Your task to perform on an android device: Open Youtube and go to "Your channel" Image 0: 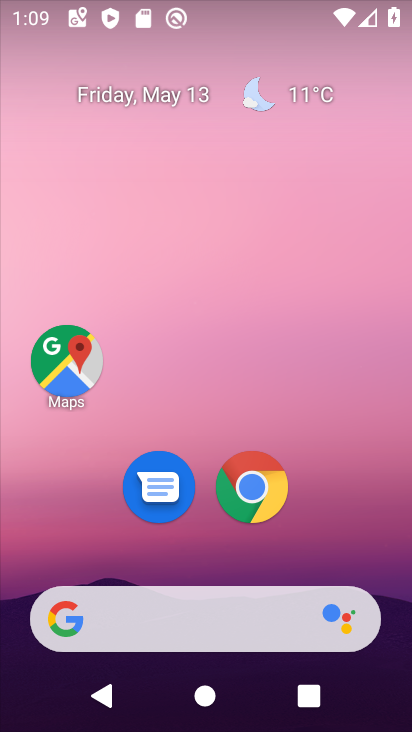
Step 0: drag from (341, 552) to (321, 75)
Your task to perform on an android device: Open Youtube and go to "Your channel" Image 1: 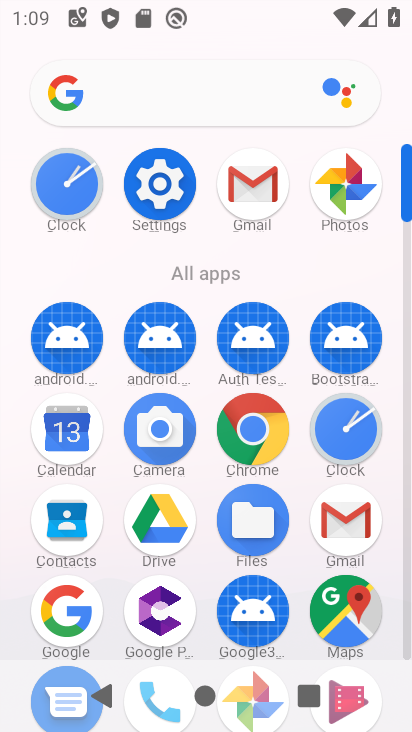
Step 1: drag from (302, 603) to (305, 173)
Your task to perform on an android device: Open Youtube and go to "Your channel" Image 2: 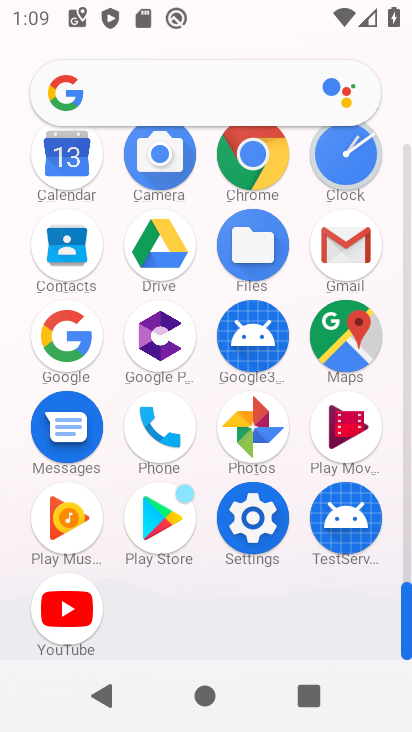
Step 2: click (65, 612)
Your task to perform on an android device: Open Youtube and go to "Your channel" Image 3: 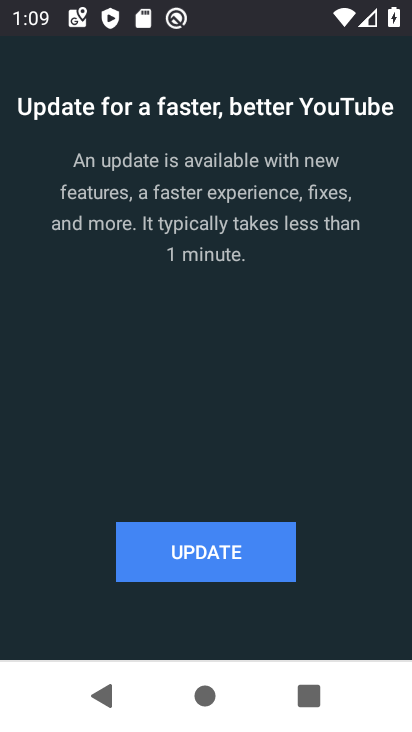
Step 3: click (270, 565)
Your task to perform on an android device: Open Youtube and go to "Your channel" Image 4: 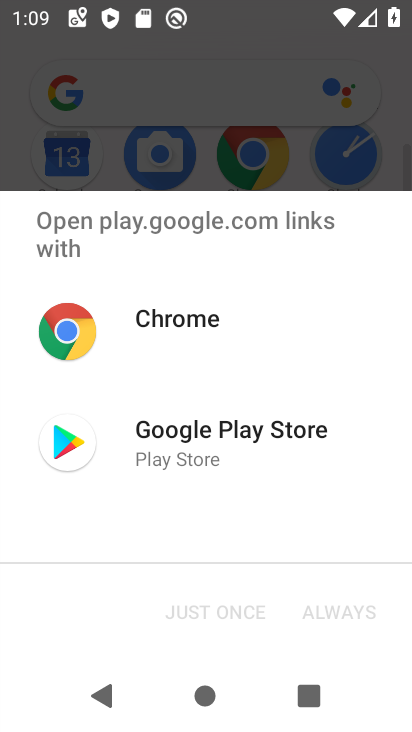
Step 4: click (174, 461)
Your task to perform on an android device: Open Youtube and go to "Your channel" Image 5: 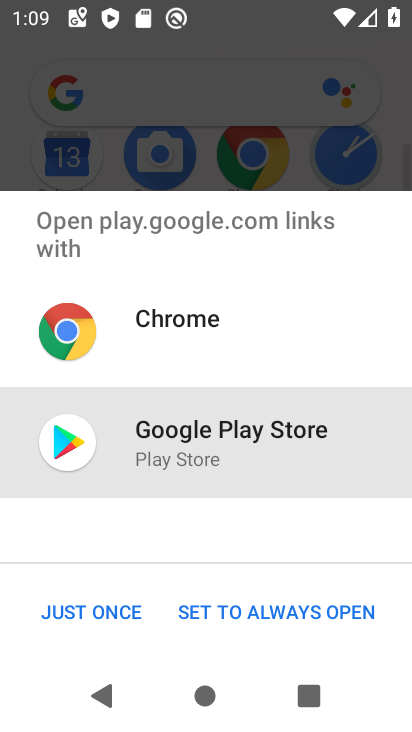
Step 5: drag from (114, 616) to (193, 597)
Your task to perform on an android device: Open Youtube and go to "Your channel" Image 6: 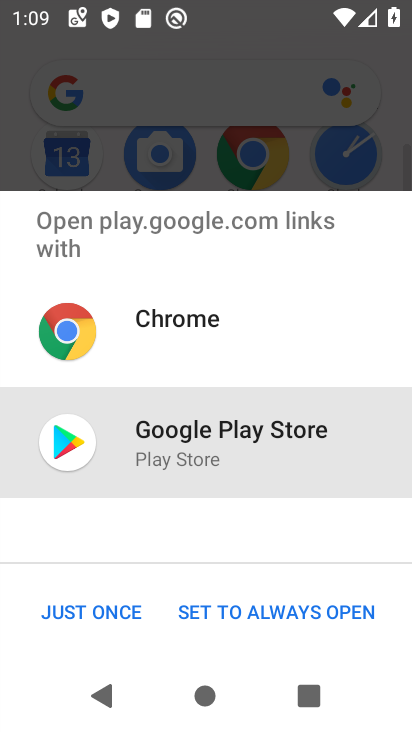
Step 6: click (103, 615)
Your task to perform on an android device: Open Youtube and go to "Your channel" Image 7: 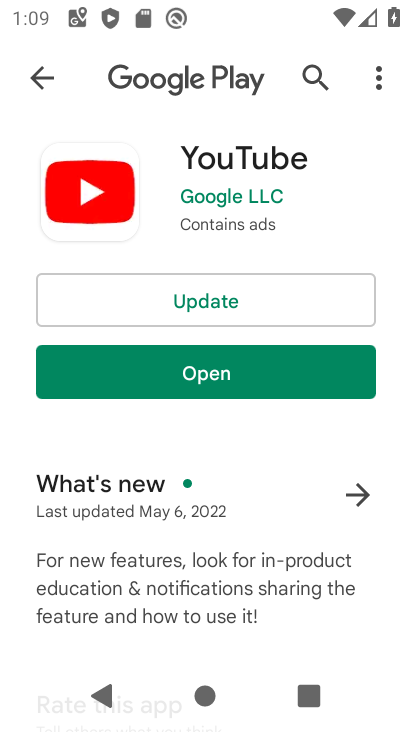
Step 7: click (234, 304)
Your task to perform on an android device: Open Youtube and go to "Your channel" Image 8: 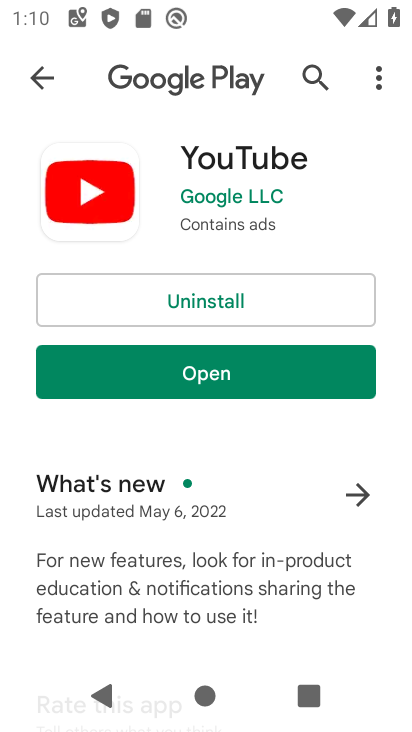
Step 8: click (178, 380)
Your task to perform on an android device: Open Youtube and go to "Your channel" Image 9: 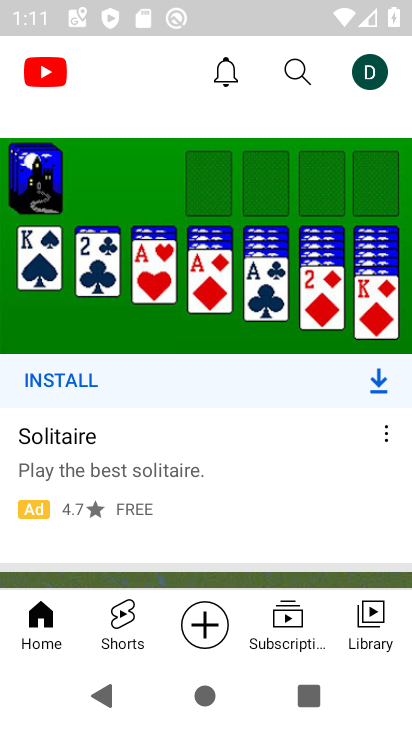
Step 9: click (383, 71)
Your task to perform on an android device: Open Youtube and go to "Your channel" Image 10: 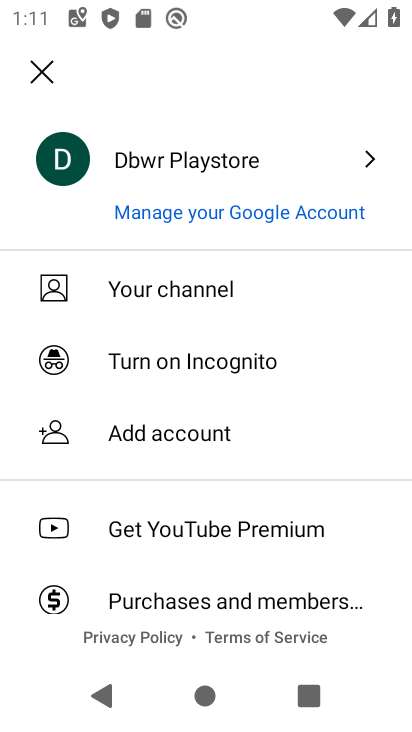
Step 10: click (203, 298)
Your task to perform on an android device: Open Youtube and go to "Your channel" Image 11: 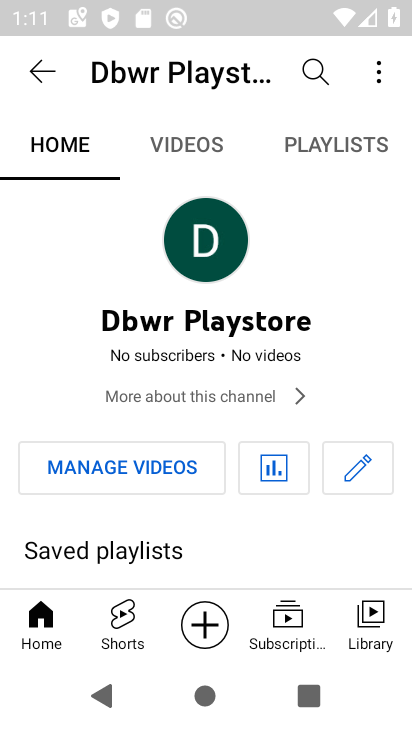
Step 11: task complete